Your task to perform on an android device: all mails in gmail Image 0: 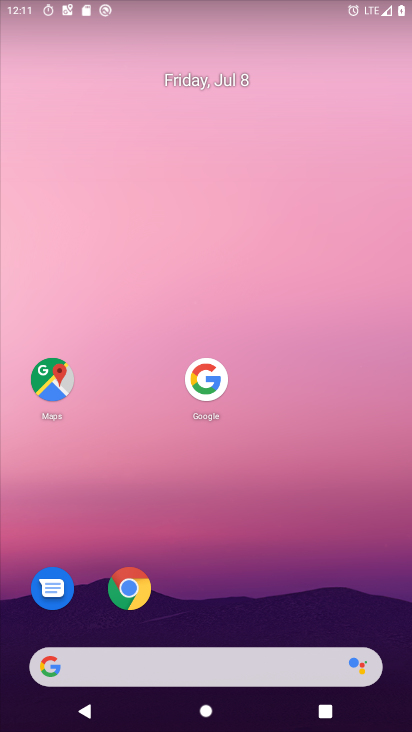
Step 0: drag from (169, 645) to (273, 50)
Your task to perform on an android device: all mails in gmail Image 1: 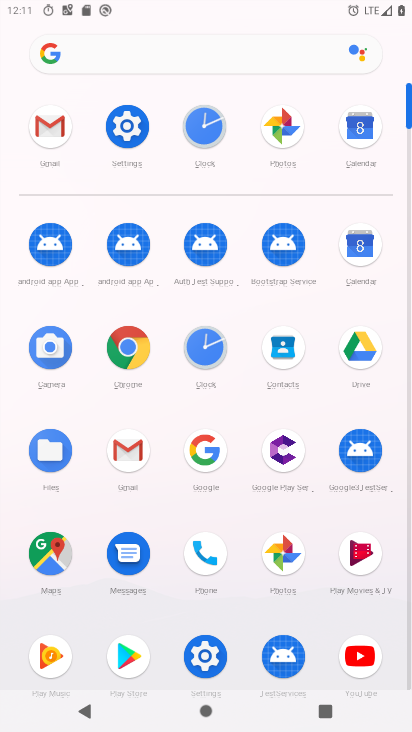
Step 1: click (54, 117)
Your task to perform on an android device: all mails in gmail Image 2: 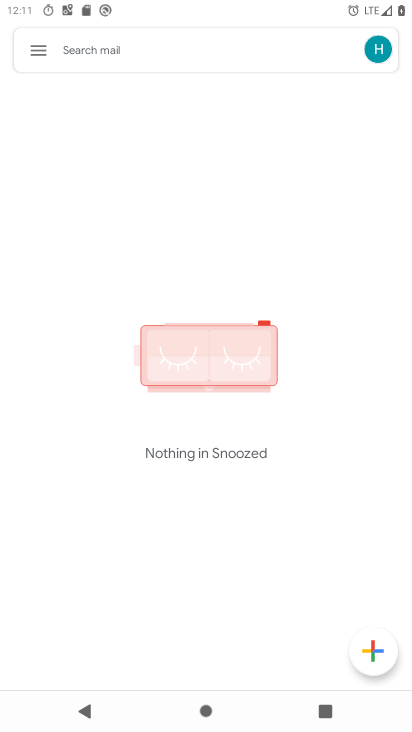
Step 2: click (33, 52)
Your task to perform on an android device: all mails in gmail Image 3: 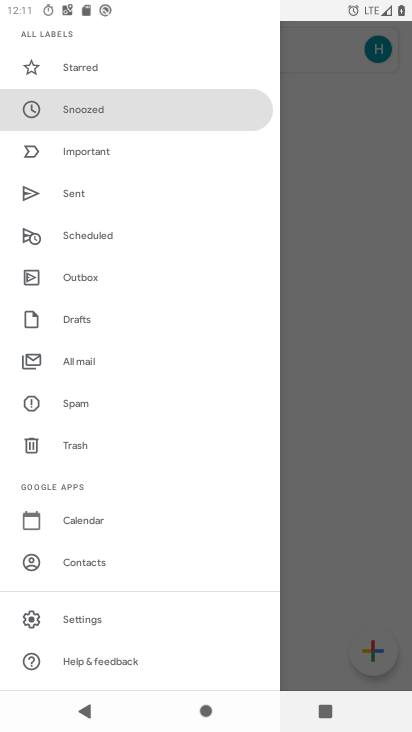
Step 3: click (95, 360)
Your task to perform on an android device: all mails in gmail Image 4: 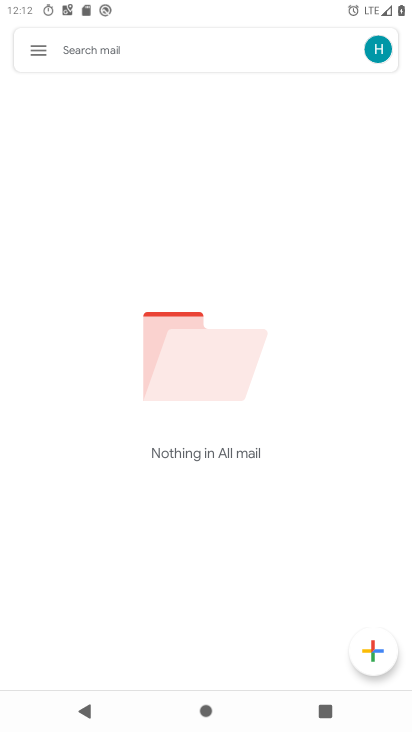
Step 4: task complete